Your task to perform on an android device: toggle location history Image 0: 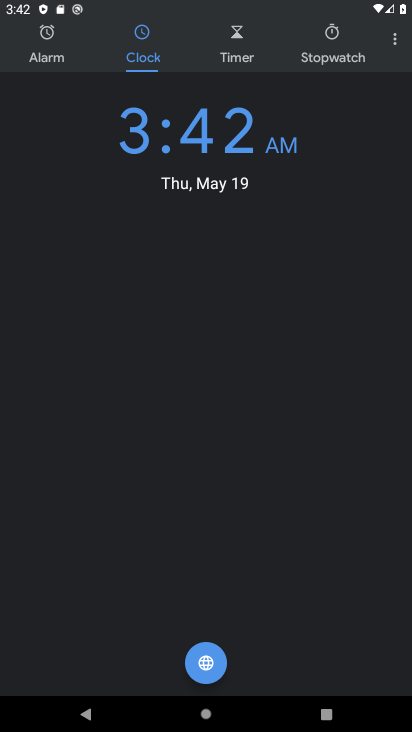
Step 0: press home button
Your task to perform on an android device: toggle location history Image 1: 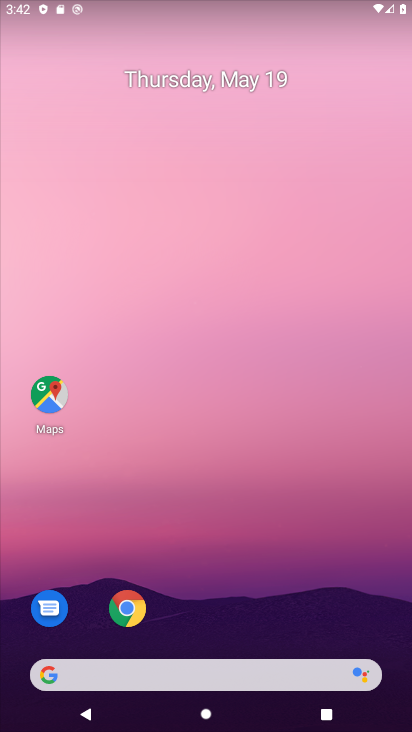
Step 1: drag from (232, 719) to (240, 1)
Your task to perform on an android device: toggle location history Image 2: 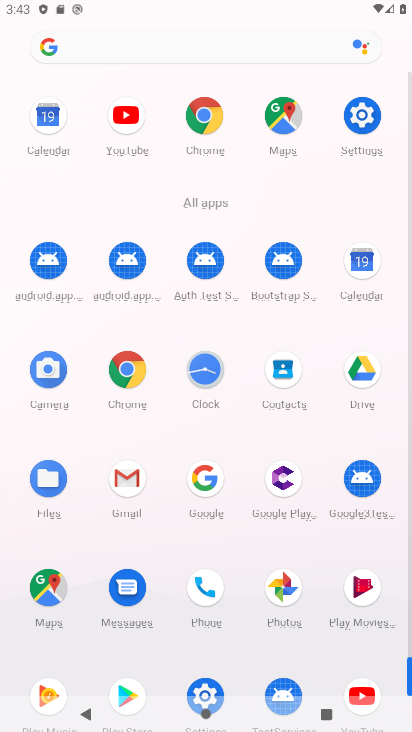
Step 2: click (357, 111)
Your task to perform on an android device: toggle location history Image 3: 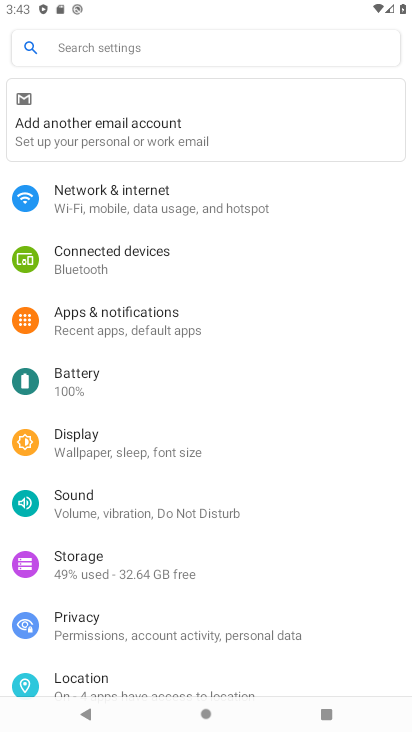
Step 3: click (121, 682)
Your task to perform on an android device: toggle location history Image 4: 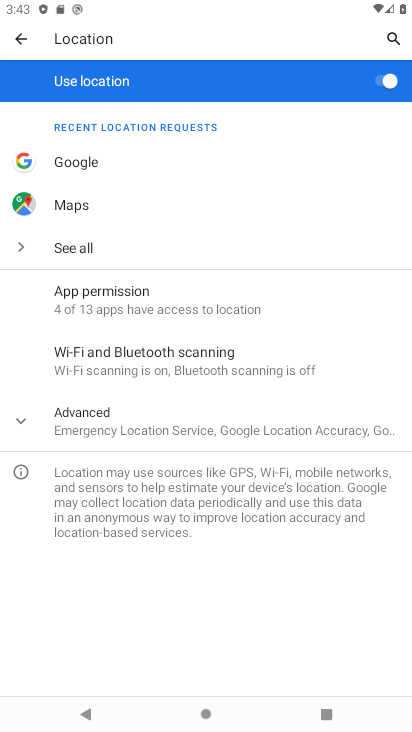
Step 4: click (107, 419)
Your task to perform on an android device: toggle location history Image 5: 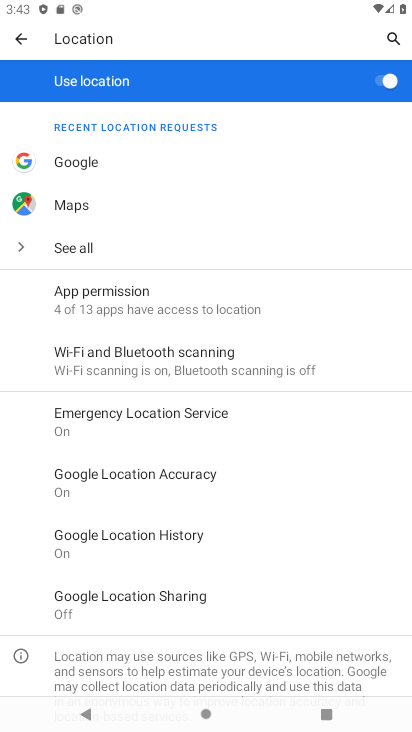
Step 5: click (153, 537)
Your task to perform on an android device: toggle location history Image 6: 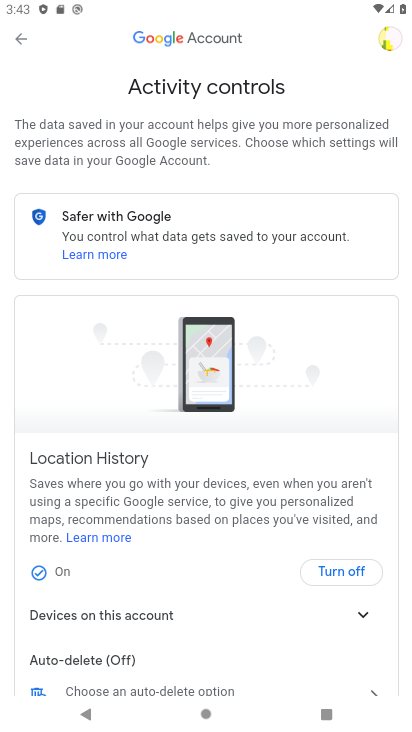
Step 6: drag from (194, 659) to (199, 484)
Your task to perform on an android device: toggle location history Image 7: 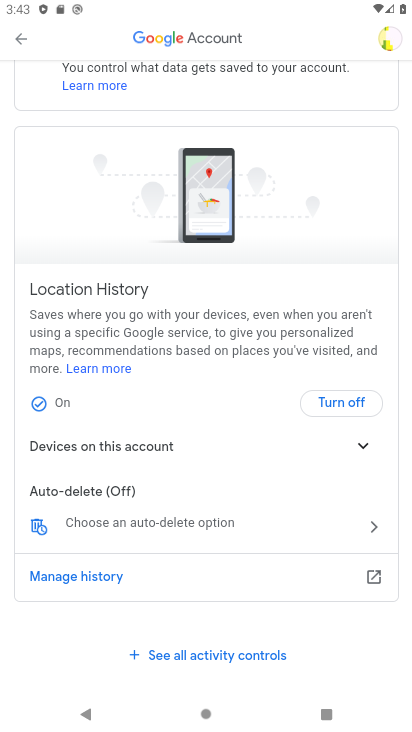
Step 7: click (347, 400)
Your task to perform on an android device: toggle location history Image 8: 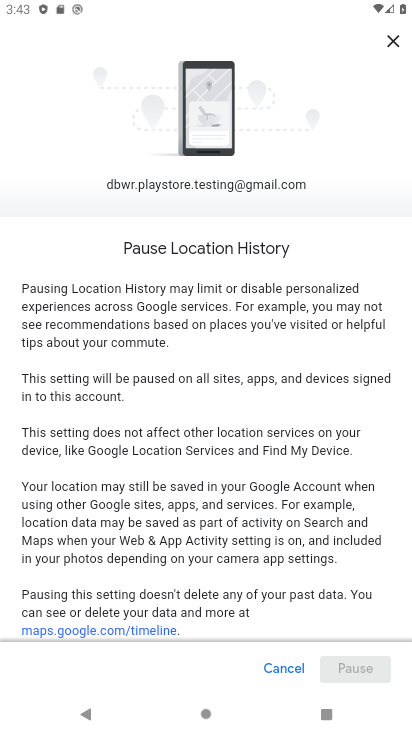
Step 8: drag from (299, 620) to (303, 312)
Your task to perform on an android device: toggle location history Image 9: 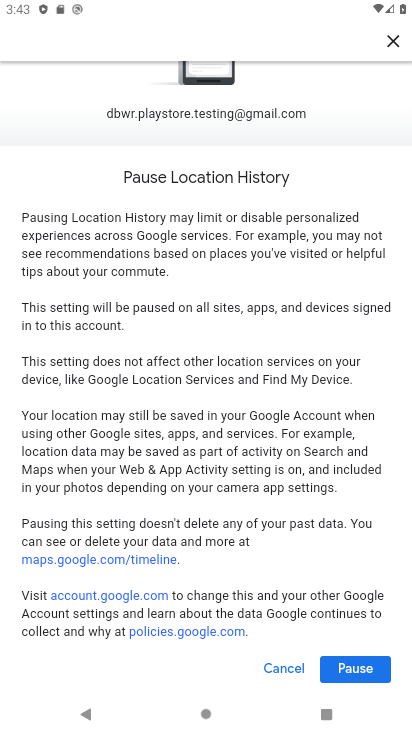
Step 9: click (373, 668)
Your task to perform on an android device: toggle location history Image 10: 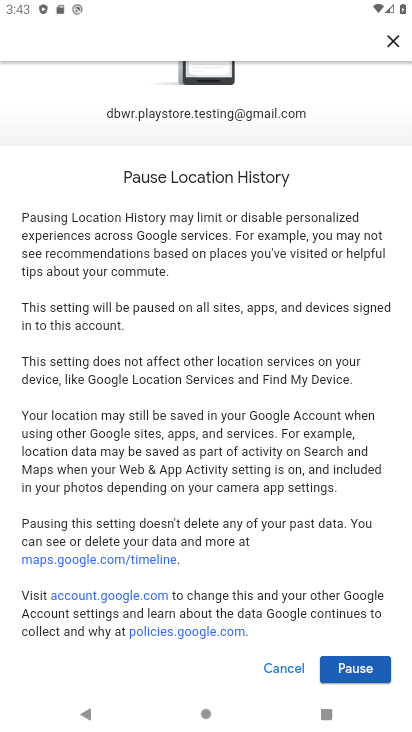
Step 10: click (364, 668)
Your task to perform on an android device: toggle location history Image 11: 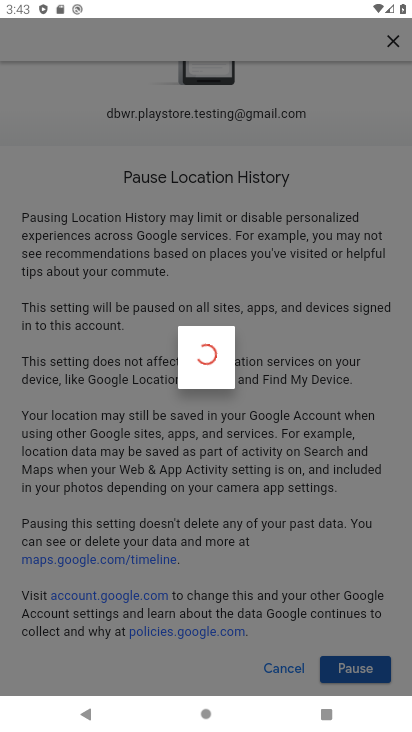
Step 11: click (358, 667)
Your task to perform on an android device: toggle location history Image 12: 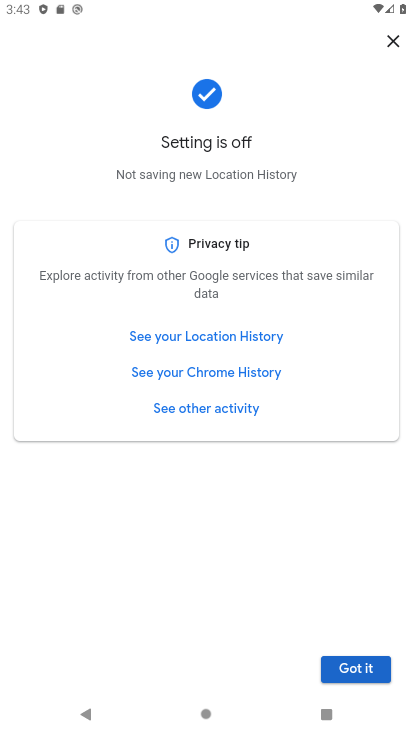
Step 12: click (363, 673)
Your task to perform on an android device: toggle location history Image 13: 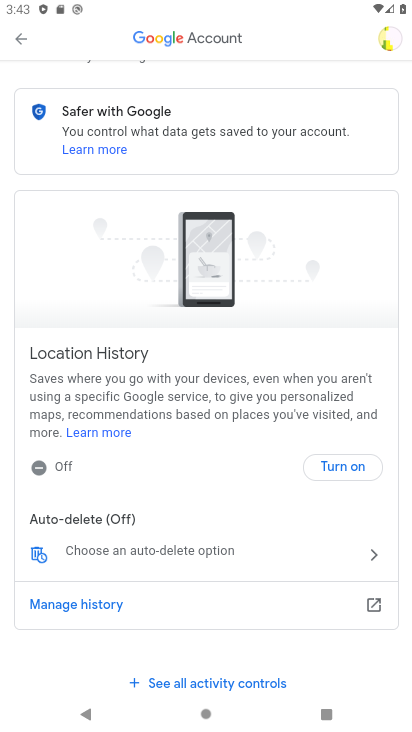
Step 13: task complete